Your task to perform on an android device: Show me the alarms in the clock app Image 0: 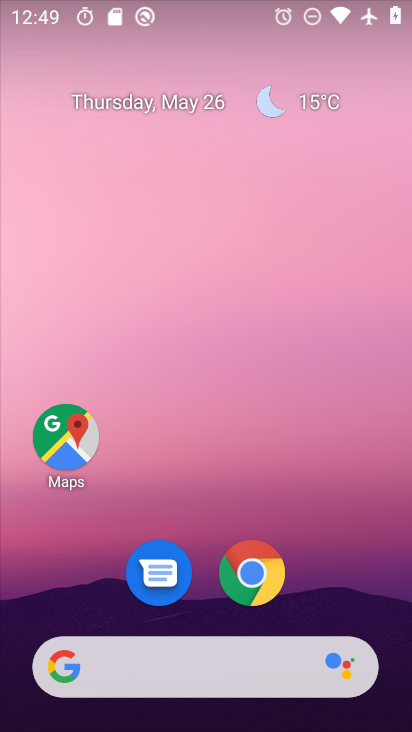
Step 0: drag from (354, 567) to (331, 11)
Your task to perform on an android device: Show me the alarms in the clock app Image 1: 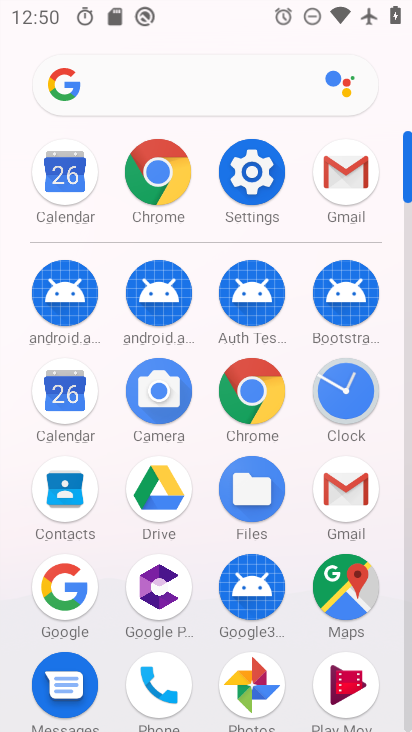
Step 1: click (340, 394)
Your task to perform on an android device: Show me the alarms in the clock app Image 2: 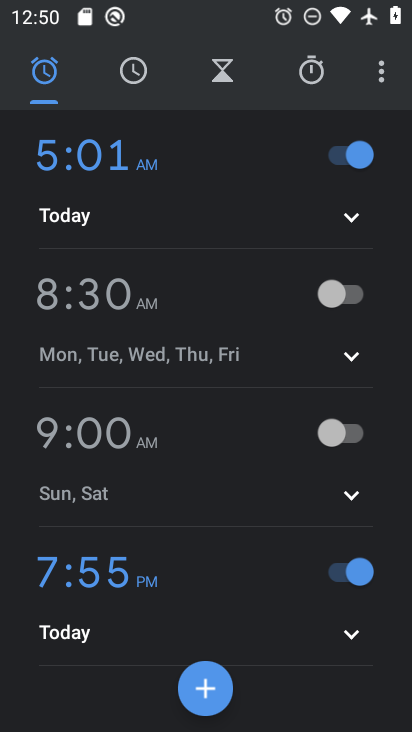
Step 2: task complete